Your task to perform on an android device: Go to CNN.com Image 0: 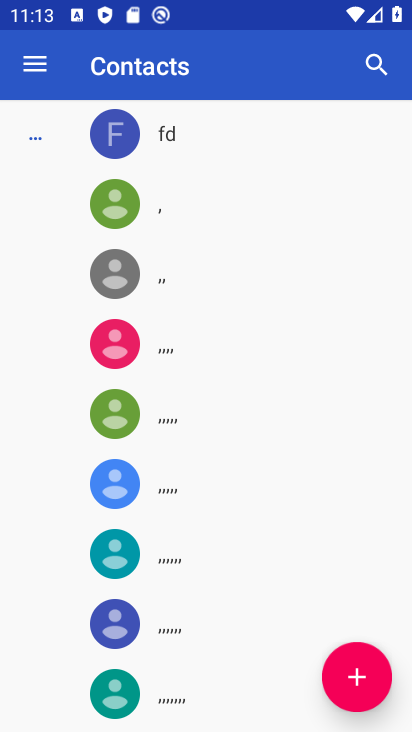
Step 0: press home button
Your task to perform on an android device: Go to CNN.com Image 1: 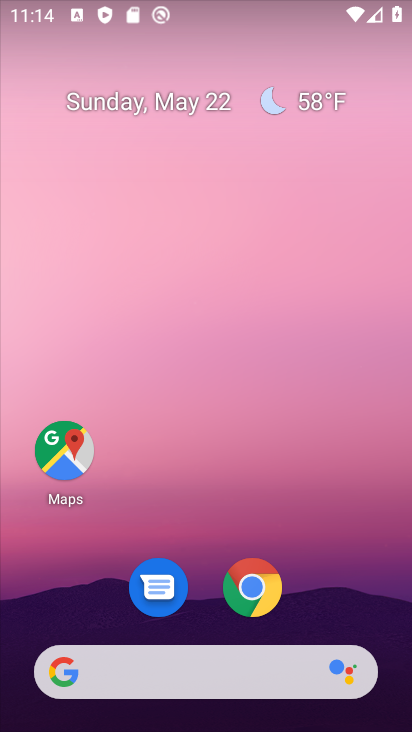
Step 1: click (260, 663)
Your task to perform on an android device: Go to CNN.com Image 2: 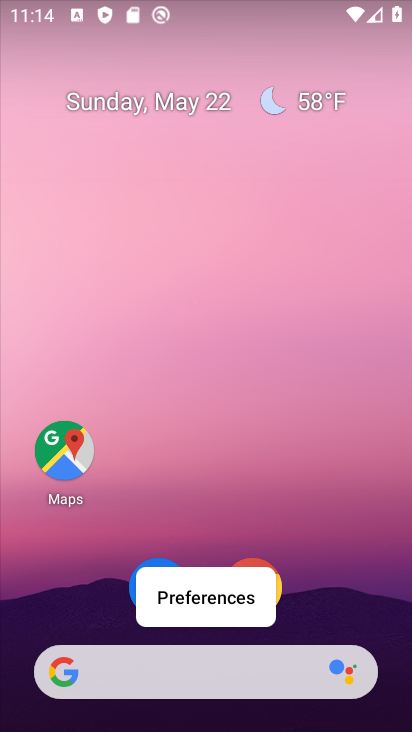
Step 2: click (216, 675)
Your task to perform on an android device: Go to CNN.com Image 3: 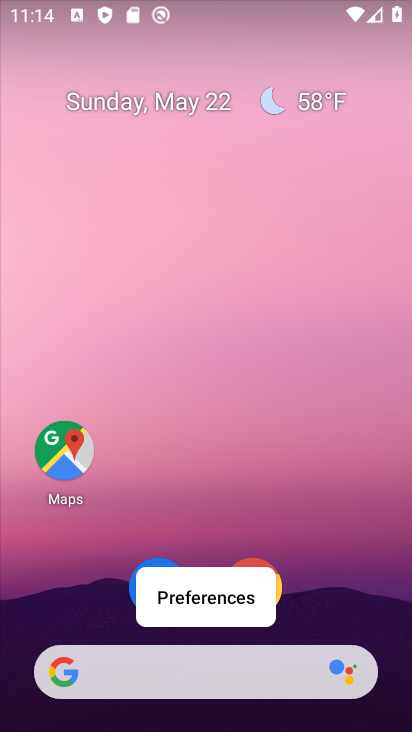
Step 3: click (216, 674)
Your task to perform on an android device: Go to CNN.com Image 4: 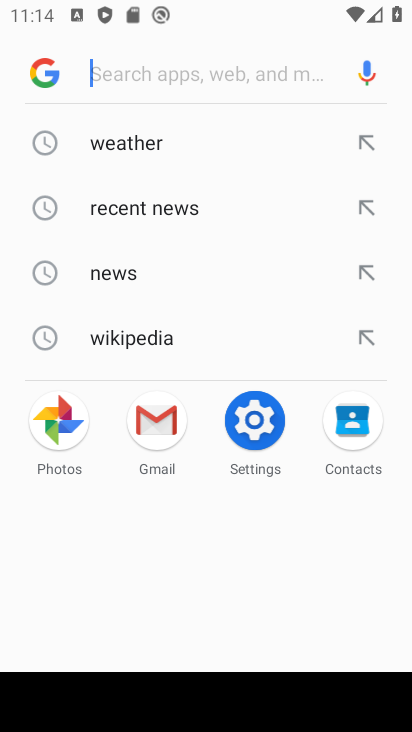
Step 4: type "cnn.com"
Your task to perform on an android device: Go to CNN.com Image 5: 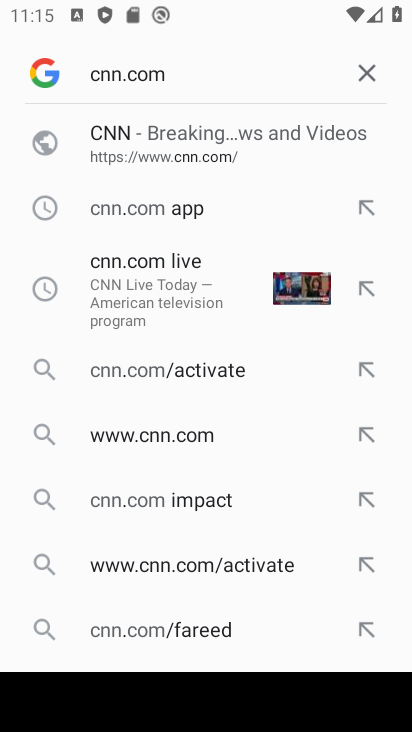
Step 5: click (96, 132)
Your task to perform on an android device: Go to CNN.com Image 6: 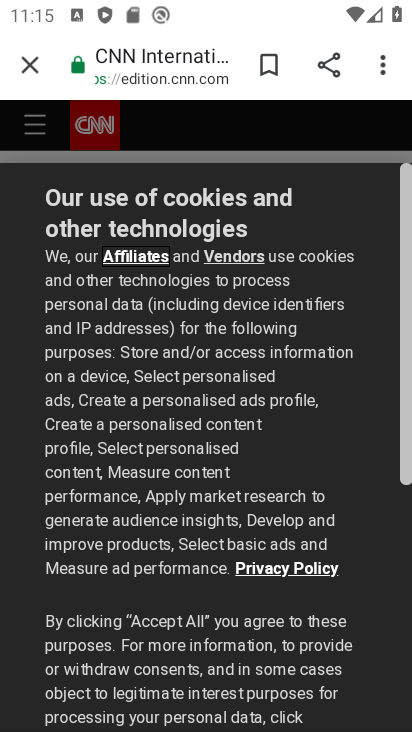
Step 6: task complete